Your task to perform on an android device: remove spam from my inbox in the gmail app Image 0: 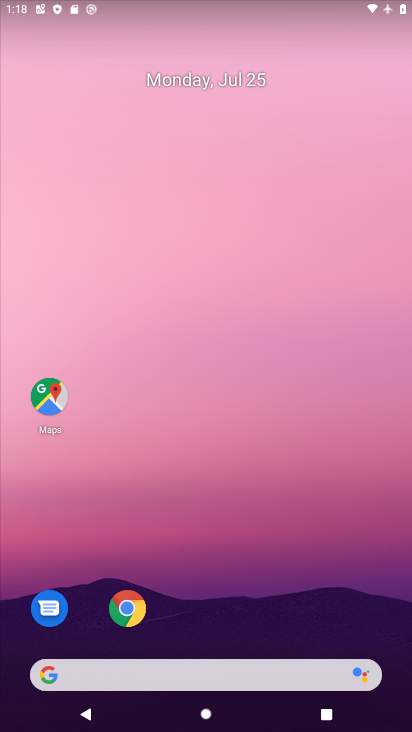
Step 0: drag from (221, 581) to (291, 126)
Your task to perform on an android device: remove spam from my inbox in the gmail app Image 1: 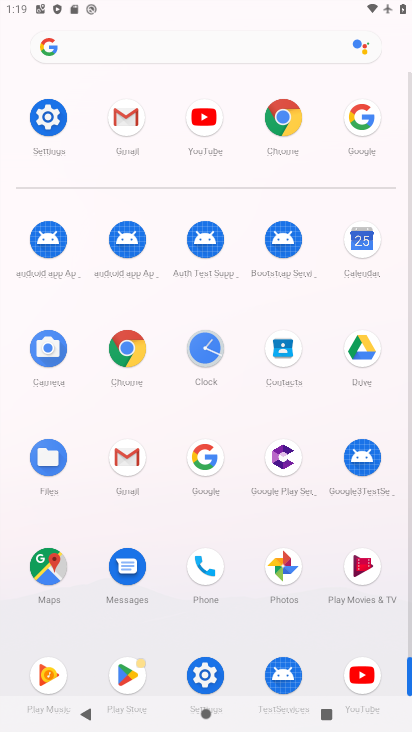
Step 1: click (136, 480)
Your task to perform on an android device: remove spam from my inbox in the gmail app Image 2: 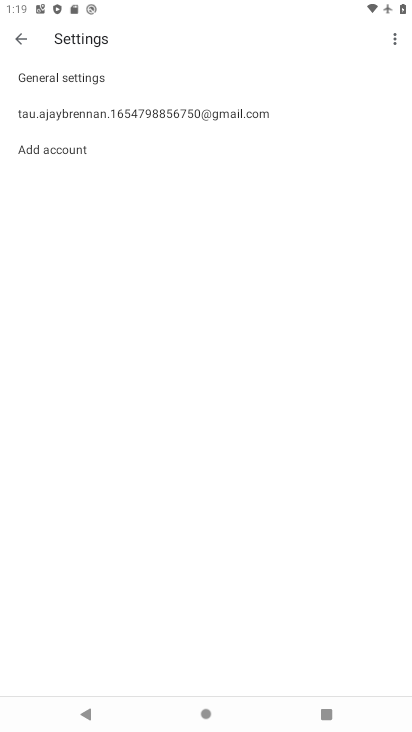
Step 2: click (17, 39)
Your task to perform on an android device: remove spam from my inbox in the gmail app Image 3: 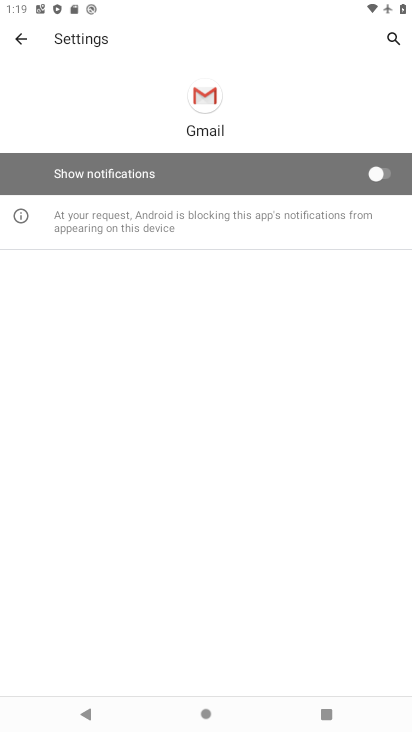
Step 3: click (19, 38)
Your task to perform on an android device: remove spam from my inbox in the gmail app Image 4: 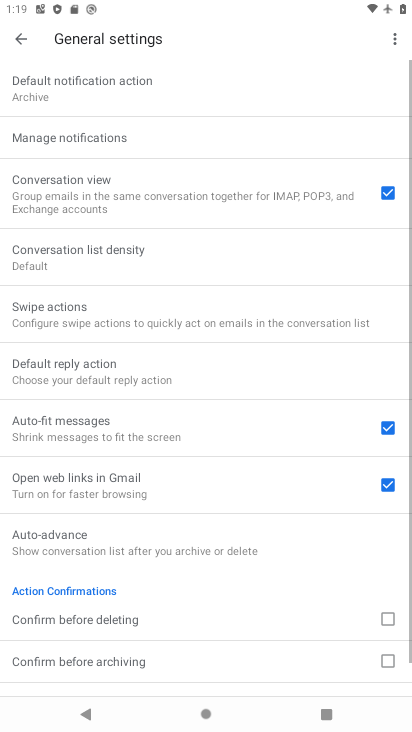
Step 4: click (20, 38)
Your task to perform on an android device: remove spam from my inbox in the gmail app Image 5: 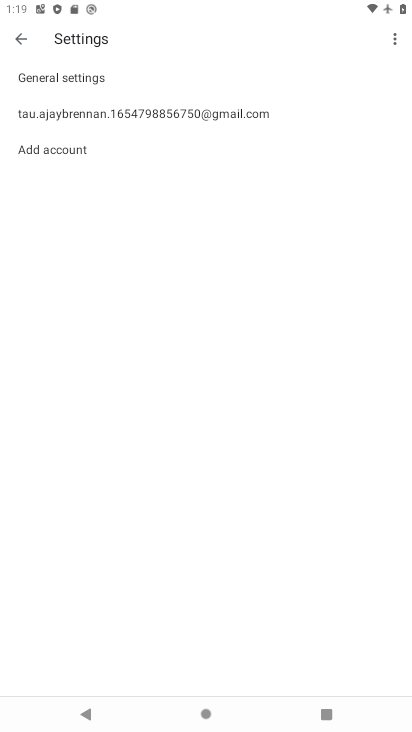
Step 5: click (20, 38)
Your task to perform on an android device: remove spam from my inbox in the gmail app Image 6: 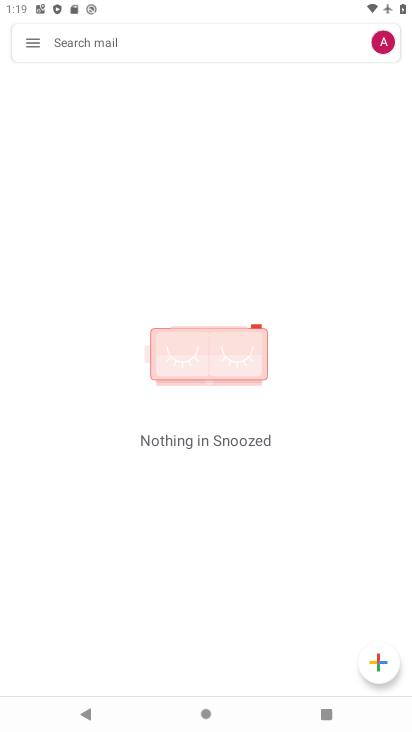
Step 6: click (28, 39)
Your task to perform on an android device: remove spam from my inbox in the gmail app Image 7: 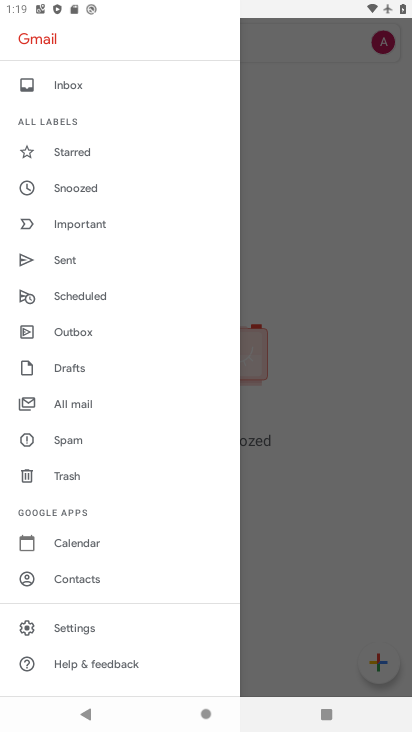
Step 7: click (70, 442)
Your task to perform on an android device: remove spam from my inbox in the gmail app Image 8: 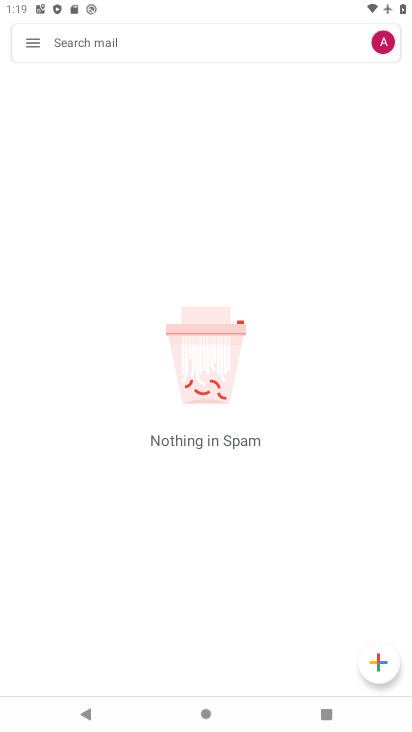
Step 8: task complete